Your task to perform on an android device: Go to location settings Image 0: 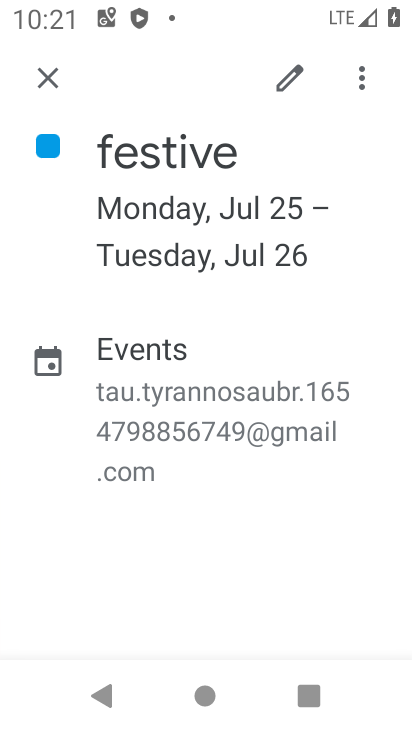
Step 0: press home button
Your task to perform on an android device: Go to location settings Image 1: 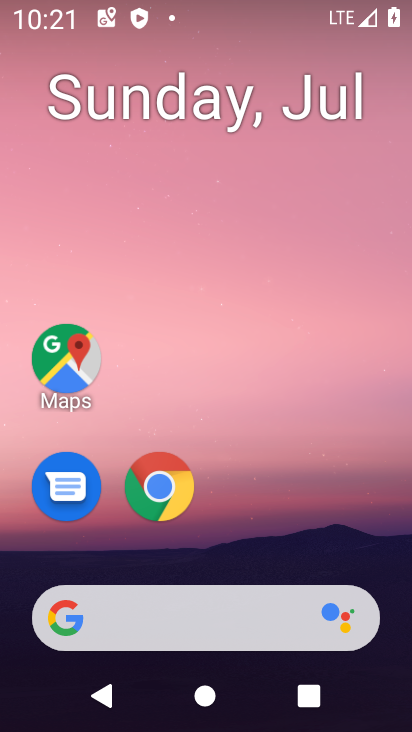
Step 1: drag from (352, 540) to (383, 104)
Your task to perform on an android device: Go to location settings Image 2: 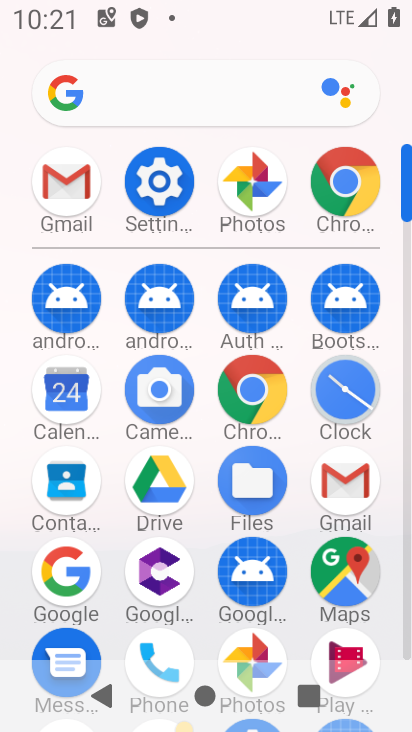
Step 2: click (174, 190)
Your task to perform on an android device: Go to location settings Image 3: 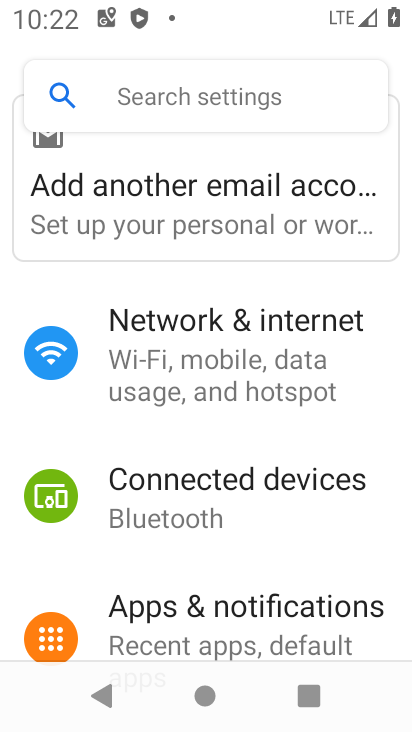
Step 3: drag from (373, 401) to (375, 333)
Your task to perform on an android device: Go to location settings Image 4: 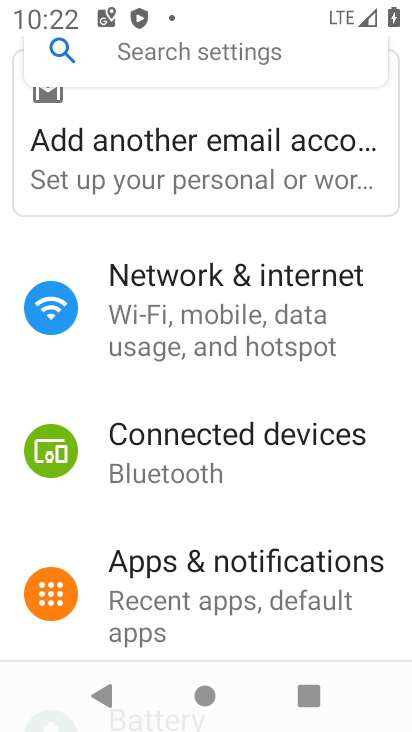
Step 4: drag from (362, 493) to (375, 388)
Your task to perform on an android device: Go to location settings Image 5: 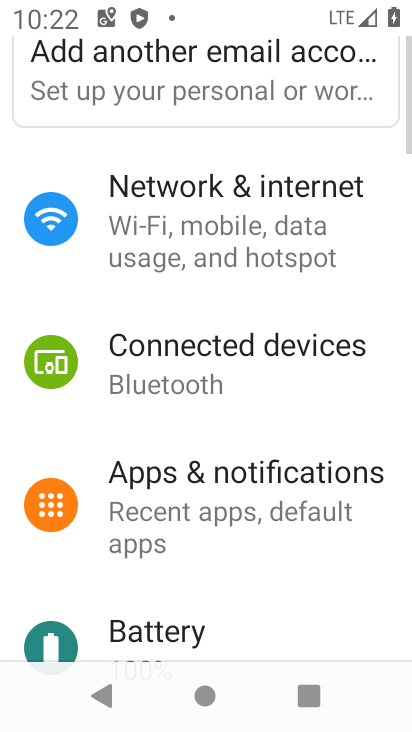
Step 5: drag from (358, 544) to (362, 424)
Your task to perform on an android device: Go to location settings Image 6: 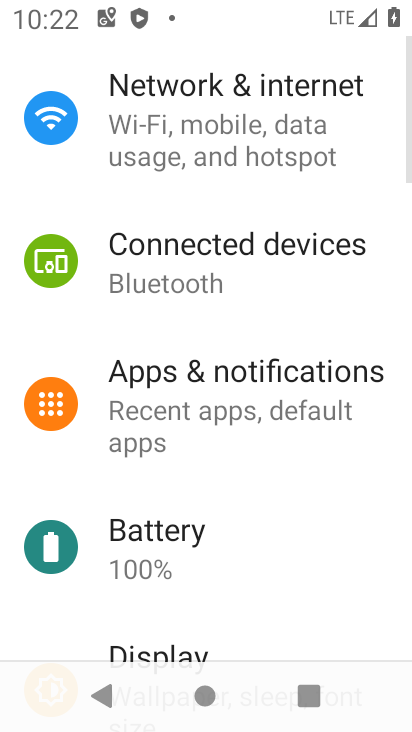
Step 6: drag from (340, 561) to (342, 447)
Your task to perform on an android device: Go to location settings Image 7: 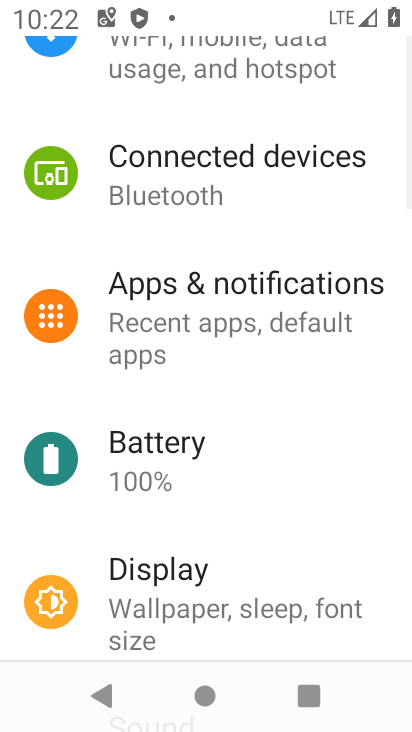
Step 7: drag from (323, 585) to (327, 487)
Your task to perform on an android device: Go to location settings Image 8: 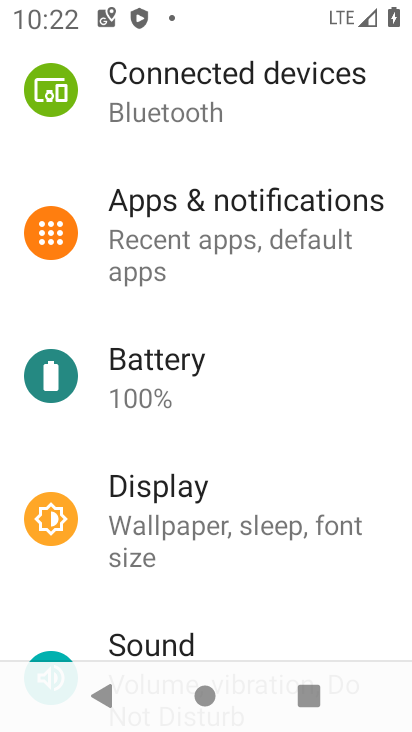
Step 8: drag from (327, 594) to (333, 486)
Your task to perform on an android device: Go to location settings Image 9: 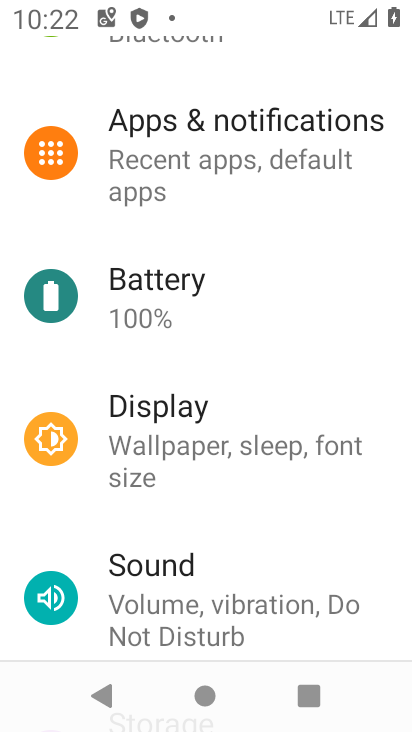
Step 9: drag from (323, 600) to (328, 492)
Your task to perform on an android device: Go to location settings Image 10: 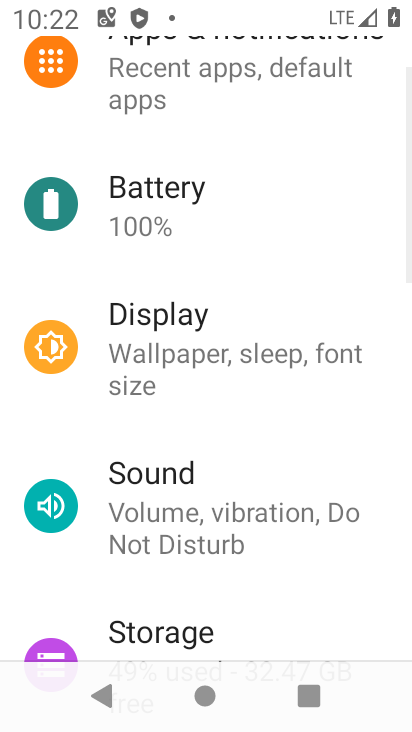
Step 10: drag from (326, 616) to (326, 503)
Your task to perform on an android device: Go to location settings Image 11: 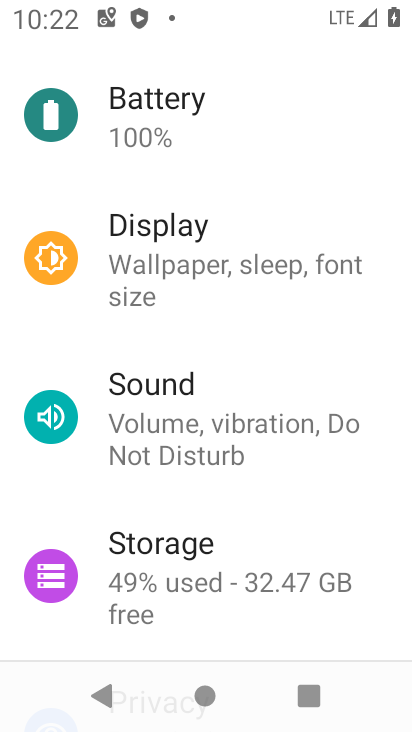
Step 11: drag from (324, 614) to (330, 479)
Your task to perform on an android device: Go to location settings Image 12: 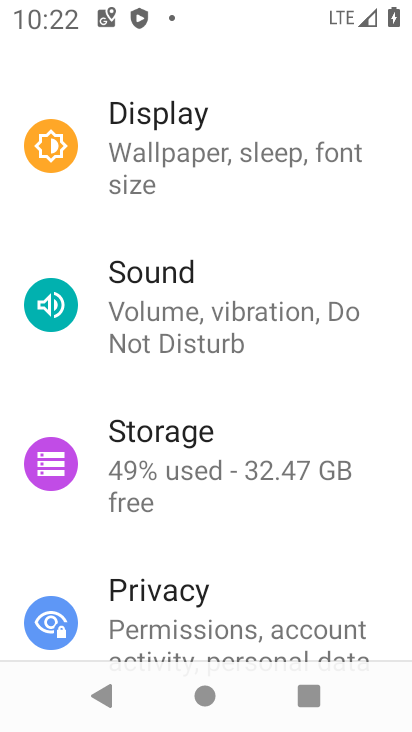
Step 12: drag from (333, 615) to (338, 480)
Your task to perform on an android device: Go to location settings Image 13: 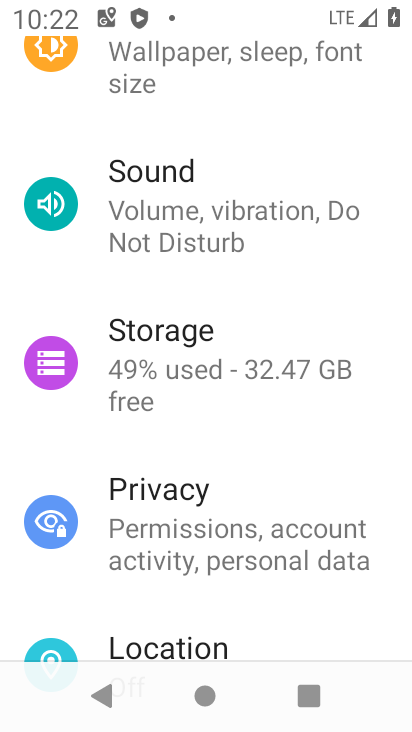
Step 13: drag from (364, 593) to (368, 389)
Your task to perform on an android device: Go to location settings Image 14: 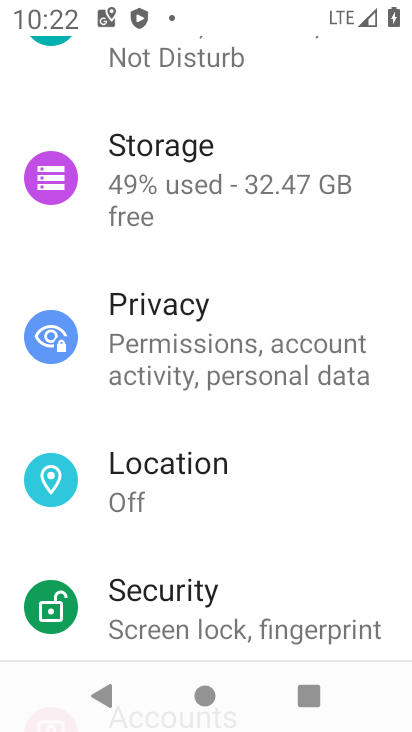
Step 14: drag from (357, 536) to (337, 352)
Your task to perform on an android device: Go to location settings Image 15: 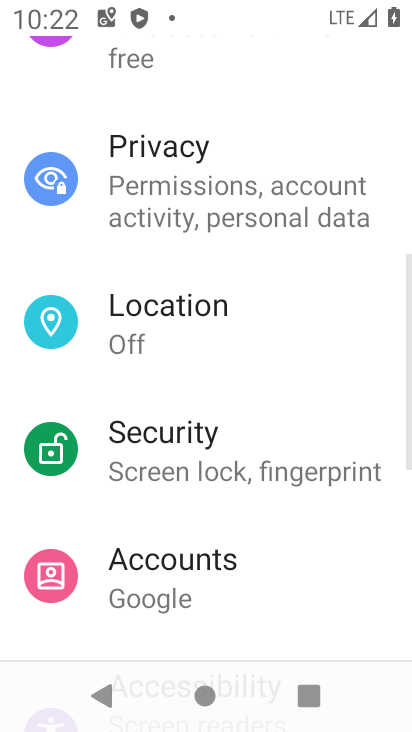
Step 15: click (328, 323)
Your task to perform on an android device: Go to location settings Image 16: 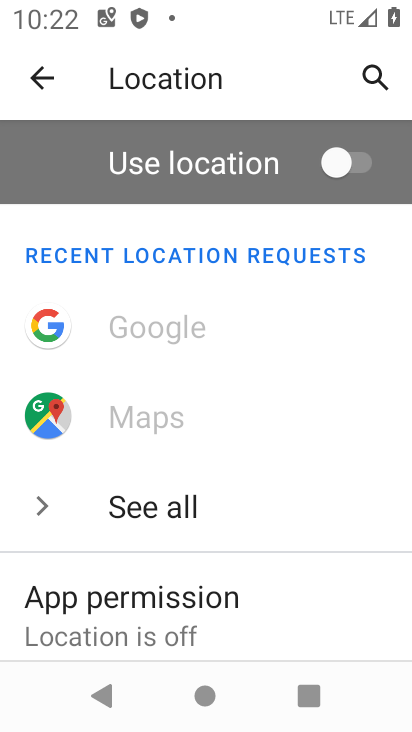
Step 16: task complete